Your task to perform on an android device: open the mobile data screen to see how much data has been used Image 0: 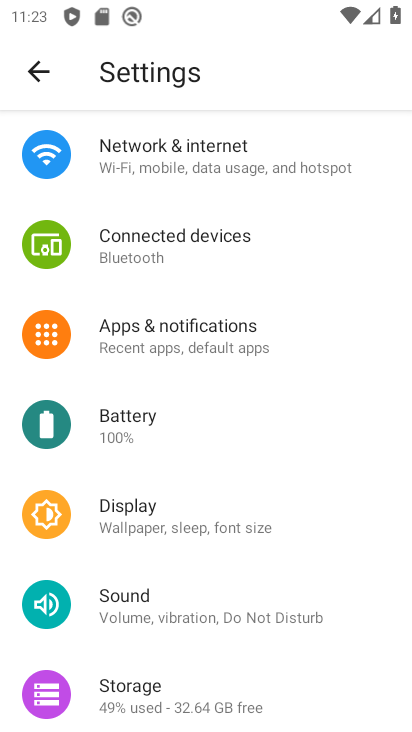
Step 0: click (186, 158)
Your task to perform on an android device: open the mobile data screen to see how much data has been used Image 1: 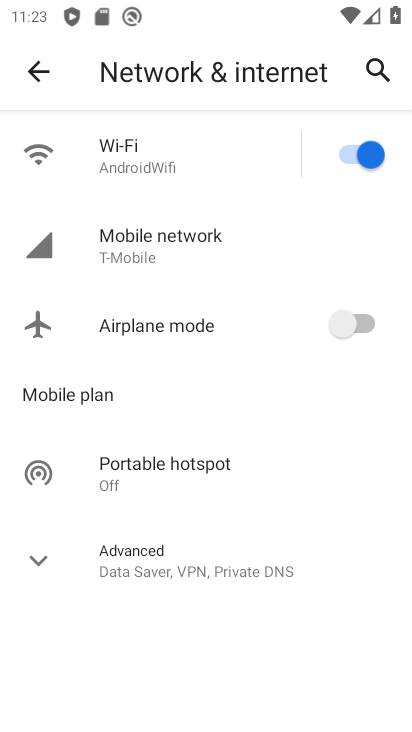
Step 1: click (165, 246)
Your task to perform on an android device: open the mobile data screen to see how much data has been used Image 2: 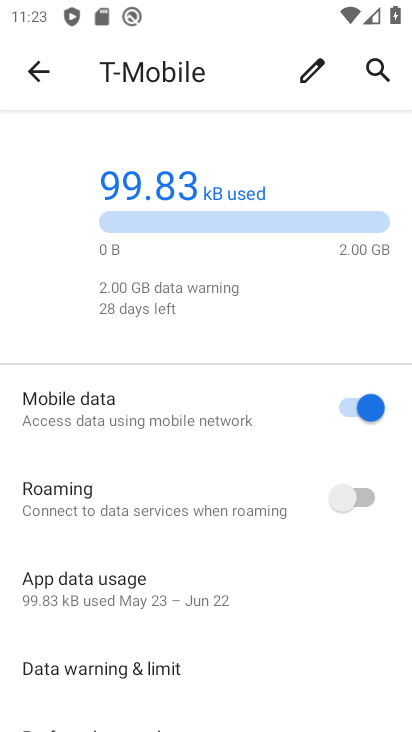
Step 2: task complete